Your task to perform on an android device: Open Youtube and go to "Your channel" Image 0: 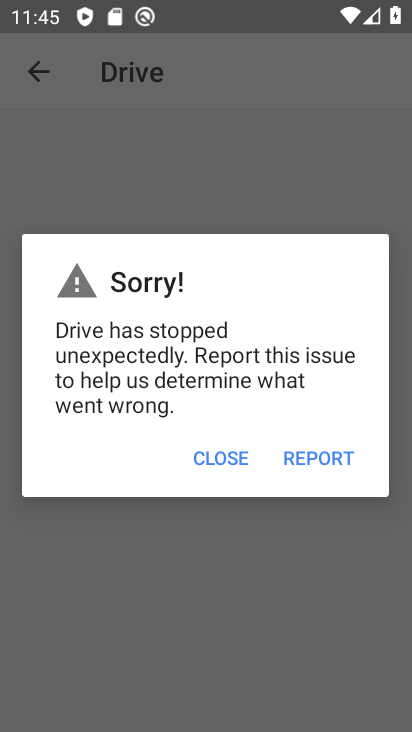
Step 0: press home button
Your task to perform on an android device: Open Youtube and go to "Your channel" Image 1: 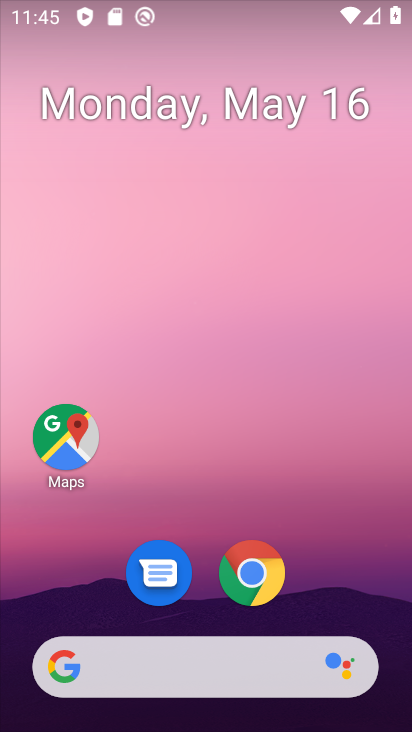
Step 1: drag from (219, 651) to (275, 216)
Your task to perform on an android device: Open Youtube and go to "Your channel" Image 2: 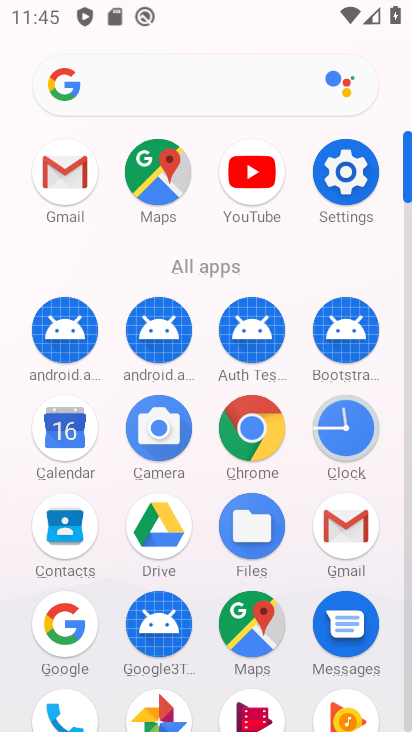
Step 2: click (266, 165)
Your task to perform on an android device: Open Youtube and go to "Your channel" Image 3: 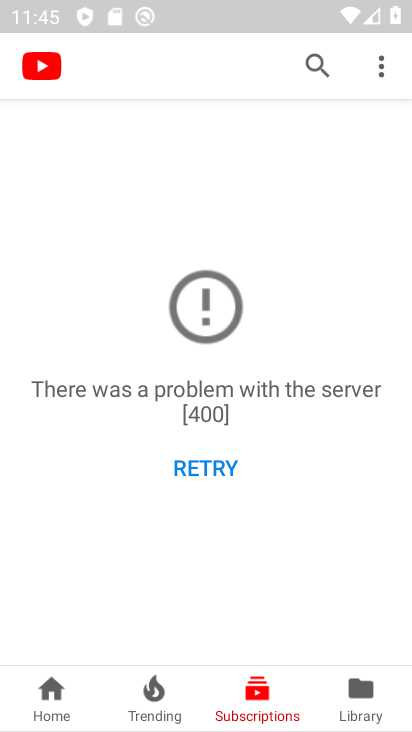
Step 3: click (371, 721)
Your task to perform on an android device: Open Youtube and go to "Your channel" Image 4: 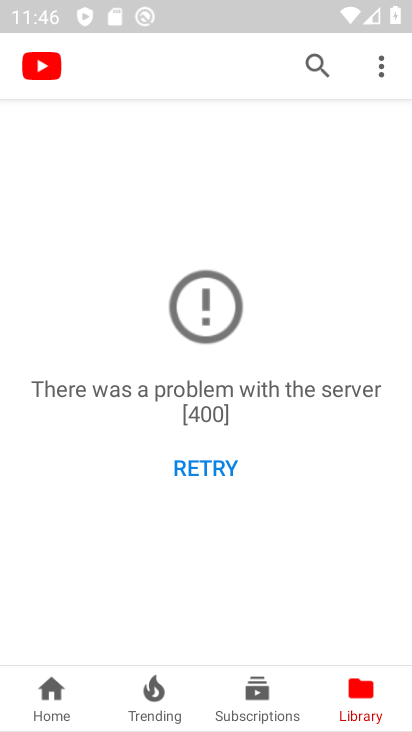
Step 4: task complete